Your task to perform on an android device: Open Yahoo.com Image 0: 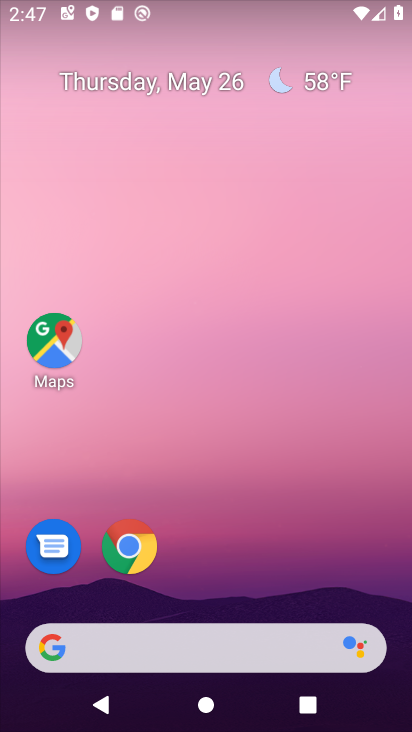
Step 0: press home button
Your task to perform on an android device: Open Yahoo.com Image 1: 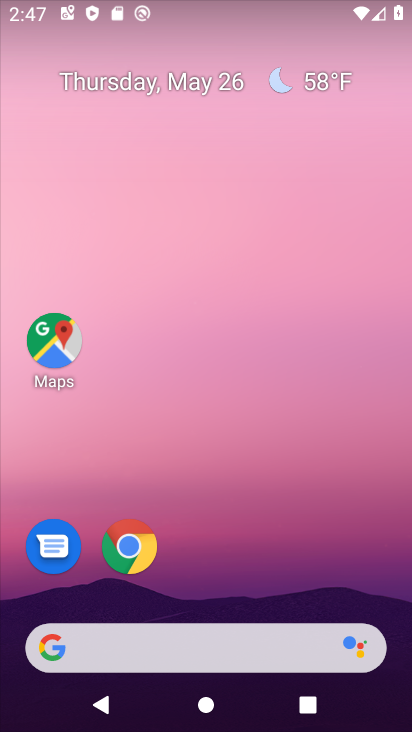
Step 1: click (126, 544)
Your task to perform on an android device: Open Yahoo.com Image 2: 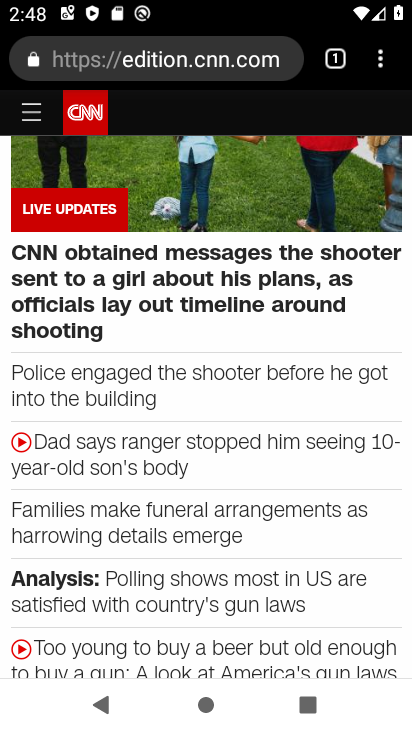
Step 2: click (343, 53)
Your task to perform on an android device: Open Yahoo.com Image 3: 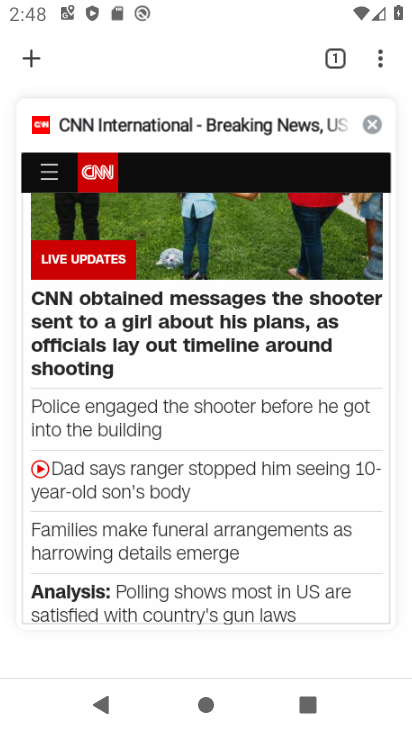
Step 3: click (24, 56)
Your task to perform on an android device: Open Yahoo.com Image 4: 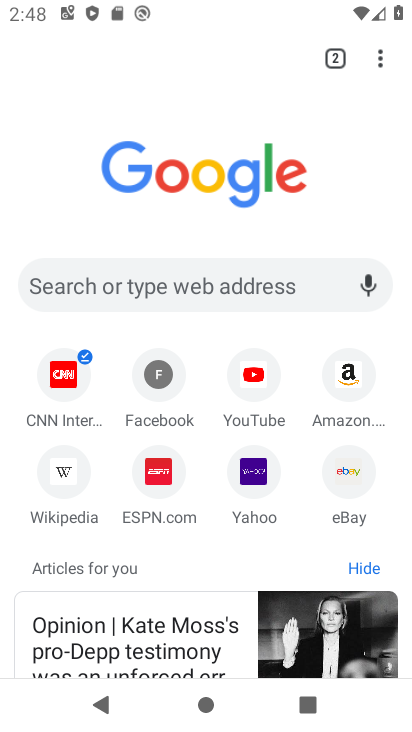
Step 4: click (255, 473)
Your task to perform on an android device: Open Yahoo.com Image 5: 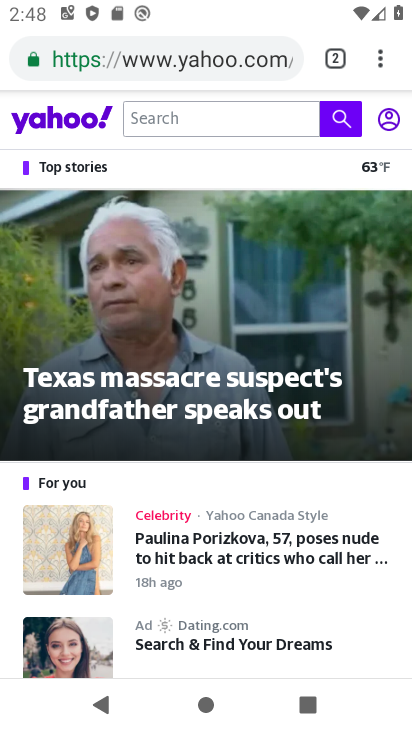
Step 5: task complete